Your task to perform on an android device: Go to Android settings Image 0: 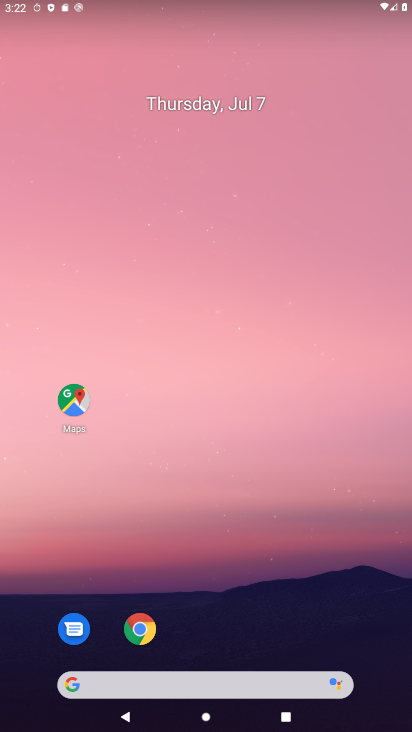
Step 0: drag from (198, 636) to (280, 93)
Your task to perform on an android device: Go to Android settings Image 1: 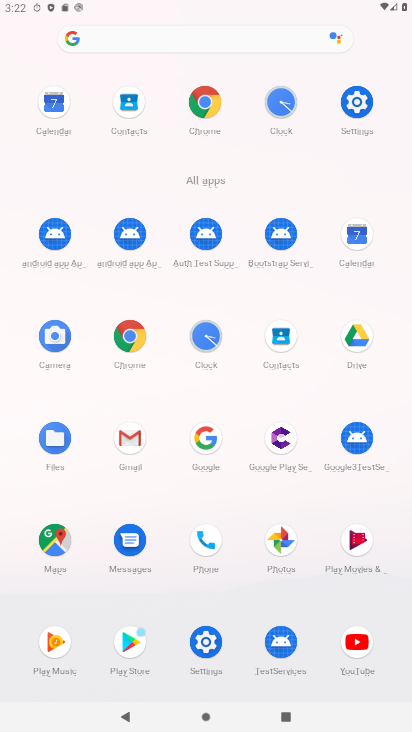
Step 1: click (357, 107)
Your task to perform on an android device: Go to Android settings Image 2: 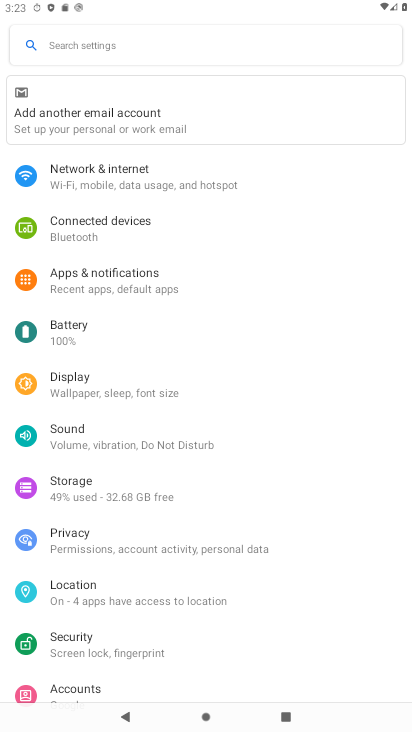
Step 2: drag from (125, 621) to (150, 244)
Your task to perform on an android device: Go to Android settings Image 3: 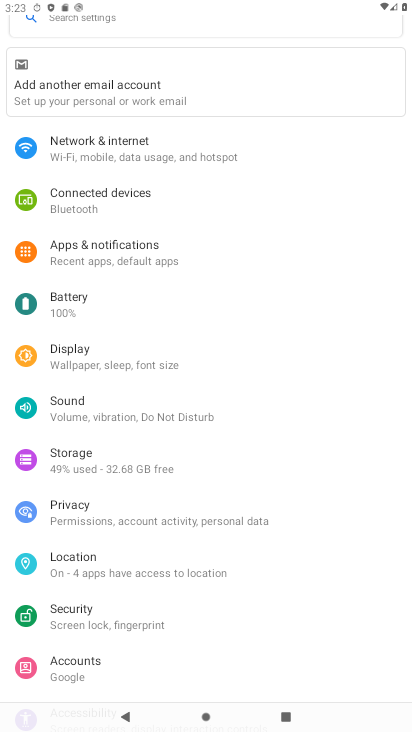
Step 3: drag from (117, 622) to (126, 203)
Your task to perform on an android device: Go to Android settings Image 4: 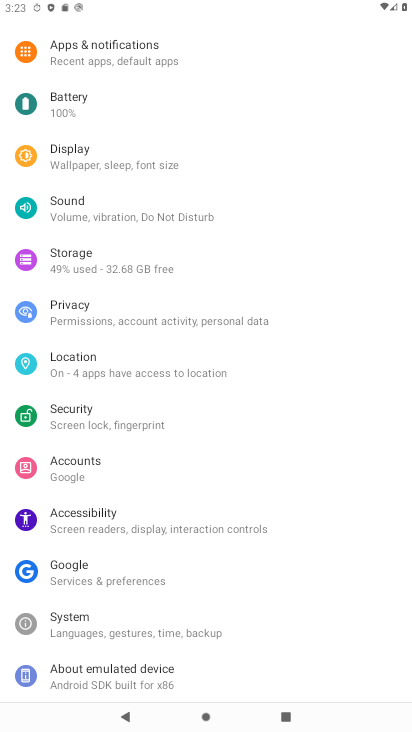
Step 4: drag from (85, 574) to (85, 502)
Your task to perform on an android device: Go to Android settings Image 5: 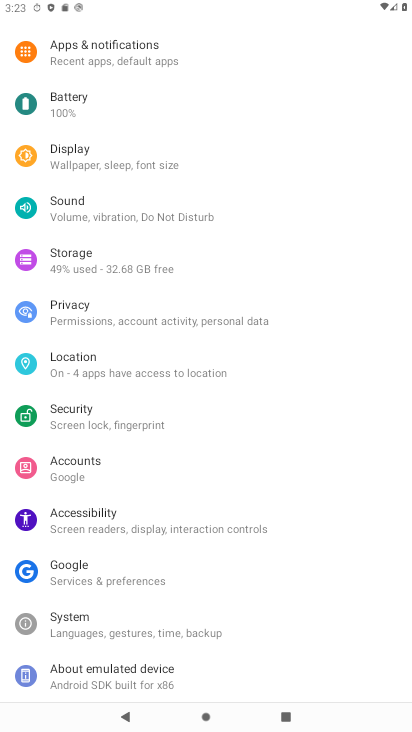
Step 5: click (109, 664)
Your task to perform on an android device: Go to Android settings Image 6: 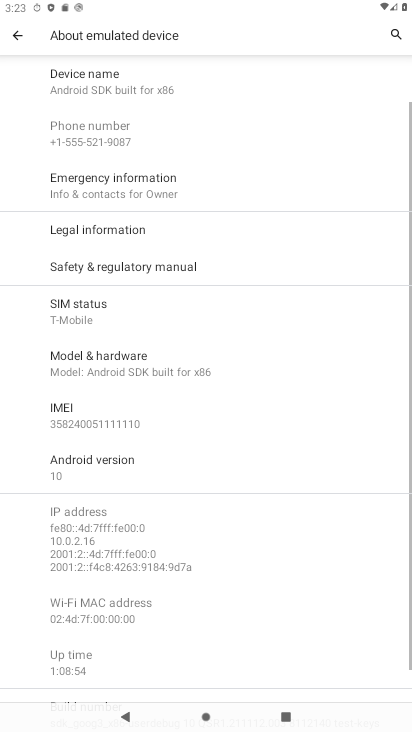
Step 6: click (91, 472)
Your task to perform on an android device: Go to Android settings Image 7: 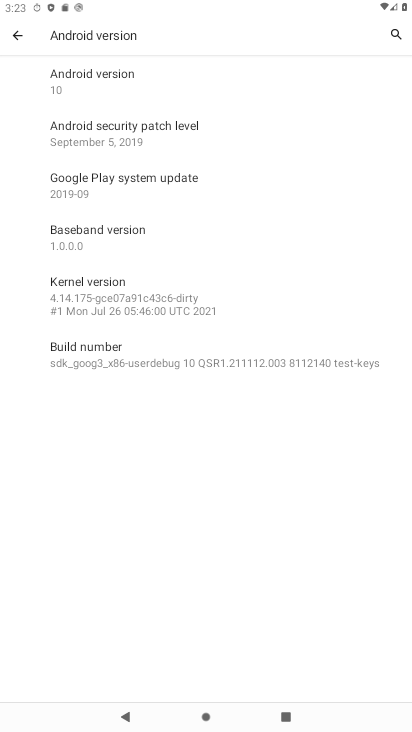
Step 7: task complete